Your task to perform on an android device: Open notification settings Image 0: 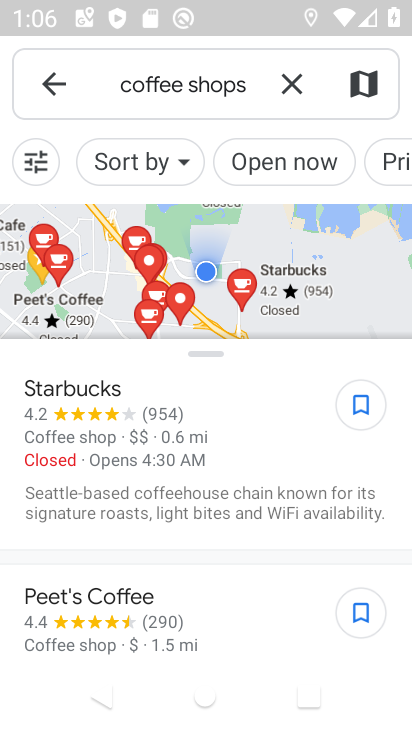
Step 0: press home button
Your task to perform on an android device: Open notification settings Image 1: 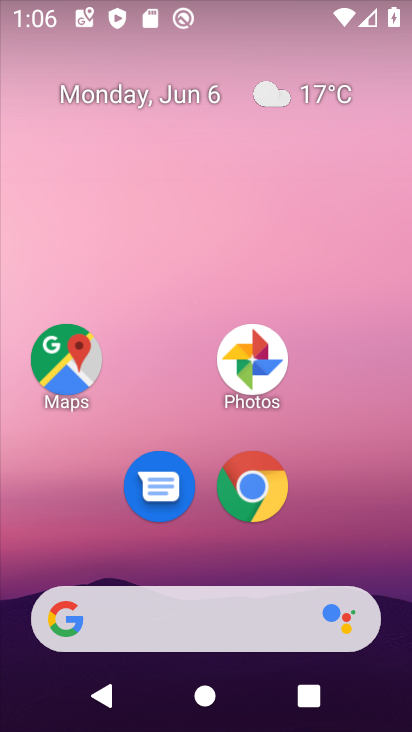
Step 1: drag from (98, 567) to (153, 207)
Your task to perform on an android device: Open notification settings Image 2: 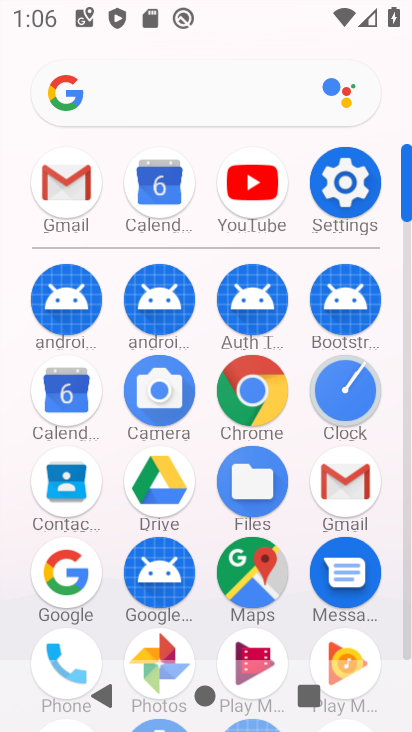
Step 2: drag from (151, 588) to (233, 276)
Your task to perform on an android device: Open notification settings Image 3: 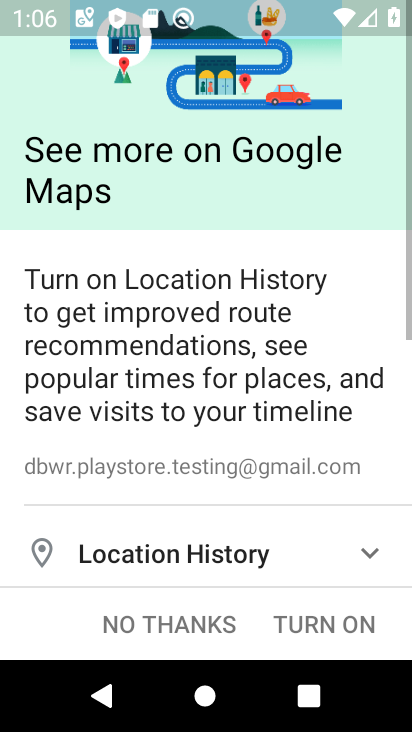
Step 3: press home button
Your task to perform on an android device: Open notification settings Image 4: 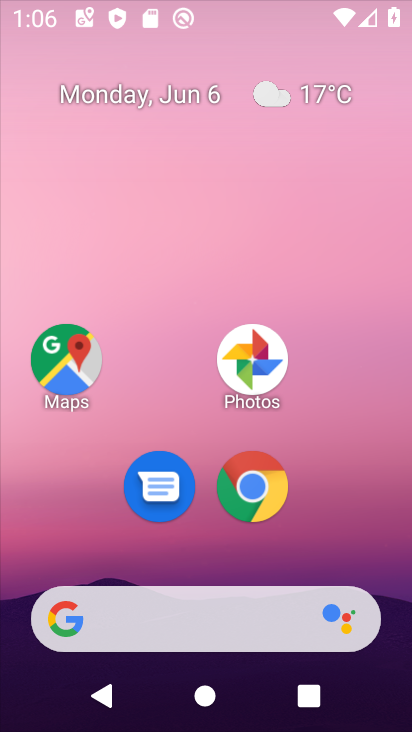
Step 4: drag from (165, 535) to (257, 3)
Your task to perform on an android device: Open notification settings Image 5: 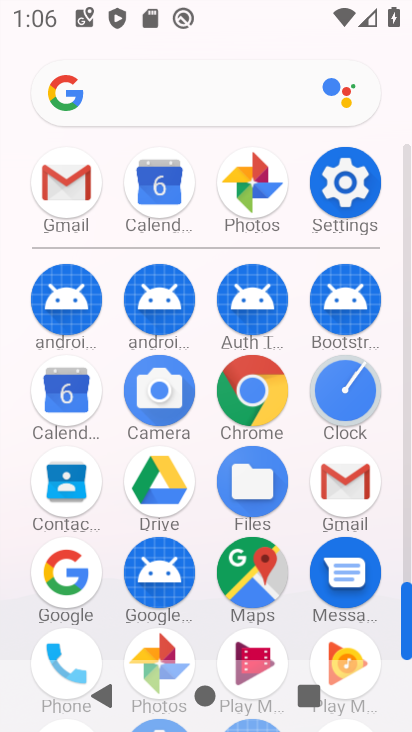
Step 5: drag from (155, 636) to (240, 318)
Your task to perform on an android device: Open notification settings Image 6: 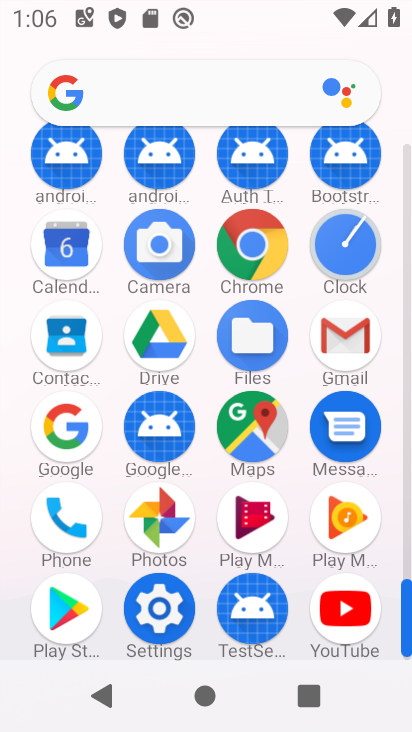
Step 6: click (159, 619)
Your task to perform on an android device: Open notification settings Image 7: 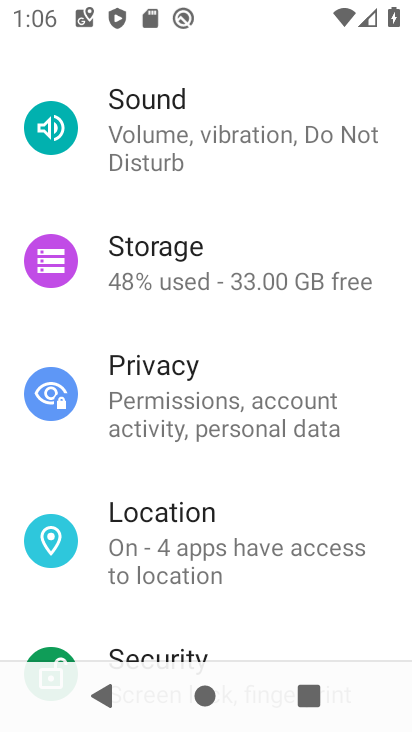
Step 7: drag from (197, 224) to (187, 566)
Your task to perform on an android device: Open notification settings Image 8: 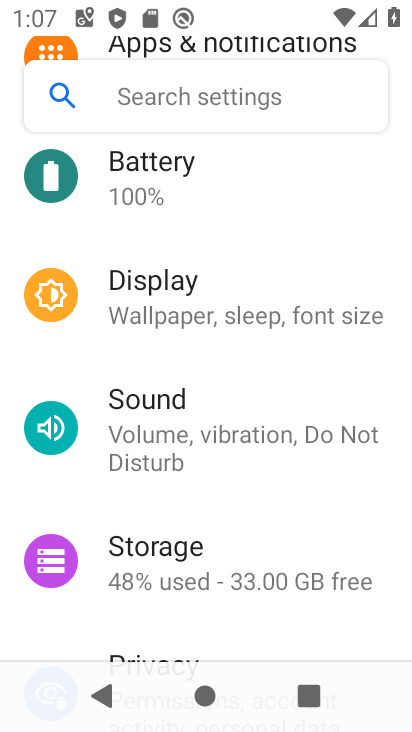
Step 8: drag from (220, 196) to (210, 586)
Your task to perform on an android device: Open notification settings Image 9: 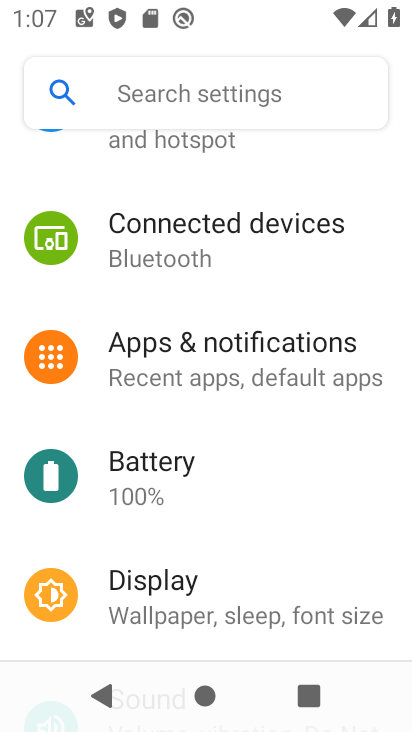
Step 9: click (233, 392)
Your task to perform on an android device: Open notification settings Image 10: 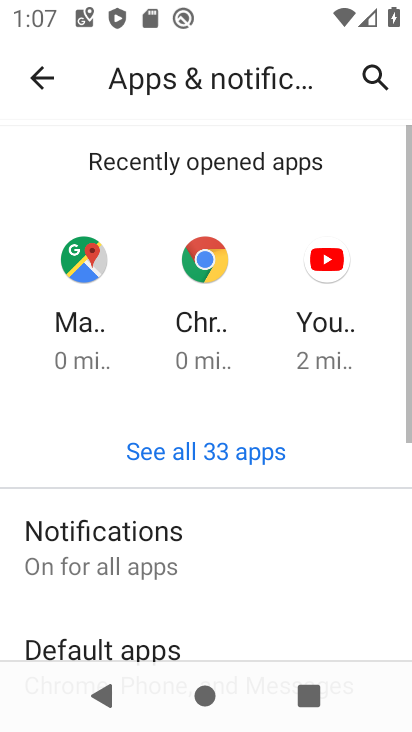
Step 10: click (216, 549)
Your task to perform on an android device: Open notification settings Image 11: 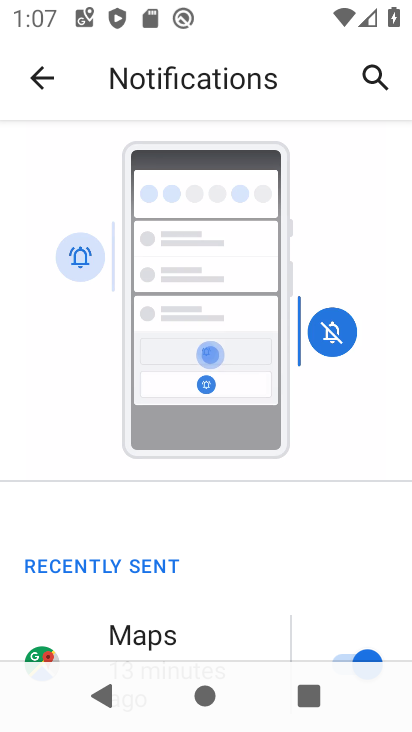
Step 11: task complete